Your task to perform on an android device: refresh tabs in the chrome app Image 0: 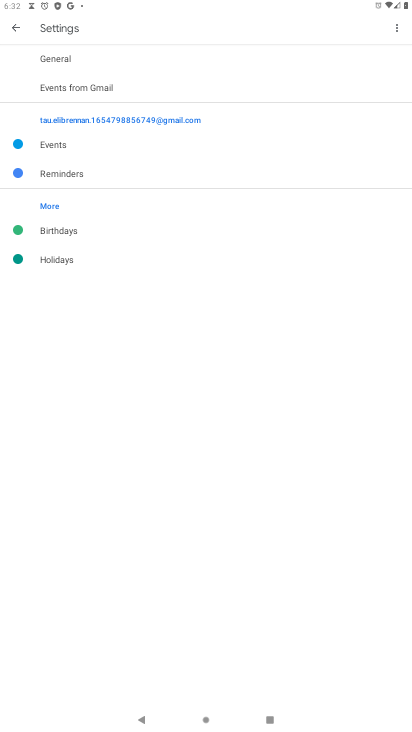
Step 0: press home button
Your task to perform on an android device: refresh tabs in the chrome app Image 1: 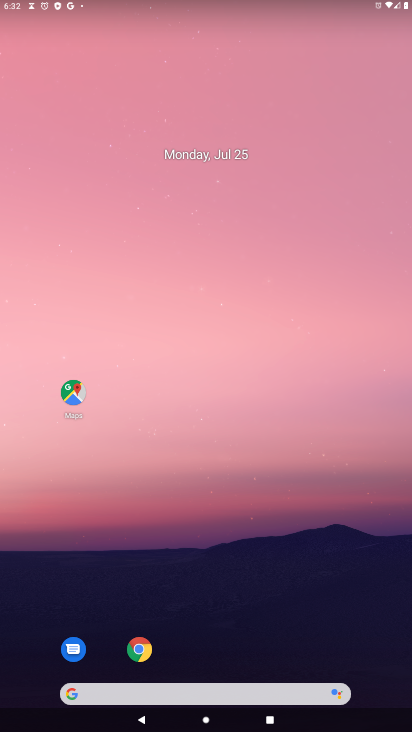
Step 1: drag from (198, 680) to (181, 0)
Your task to perform on an android device: refresh tabs in the chrome app Image 2: 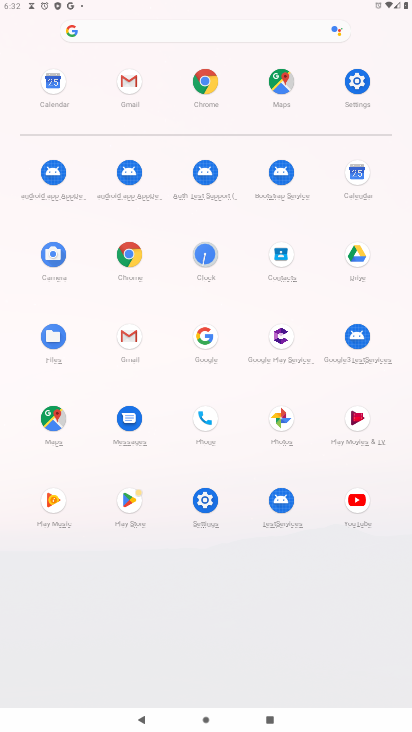
Step 2: click (129, 254)
Your task to perform on an android device: refresh tabs in the chrome app Image 3: 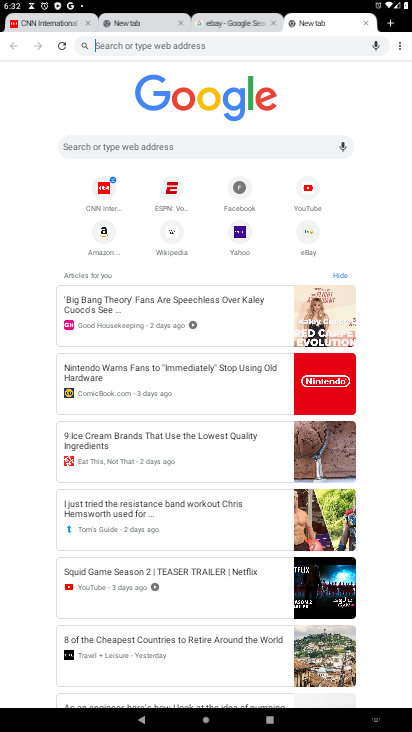
Step 3: drag from (403, 41) to (55, 42)
Your task to perform on an android device: refresh tabs in the chrome app Image 4: 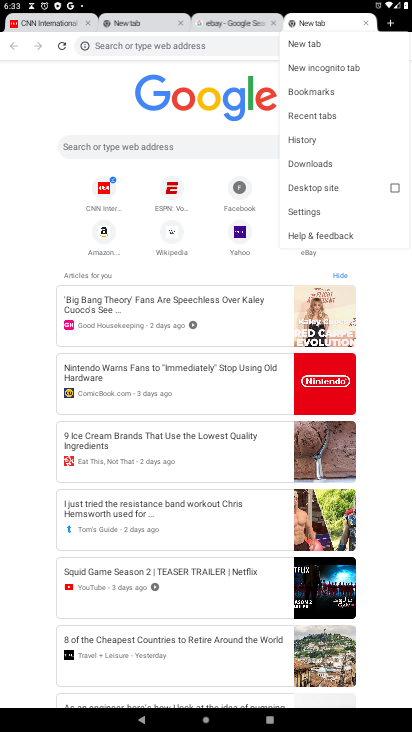
Step 4: click (55, 42)
Your task to perform on an android device: refresh tabs in the chrome app Image 5: 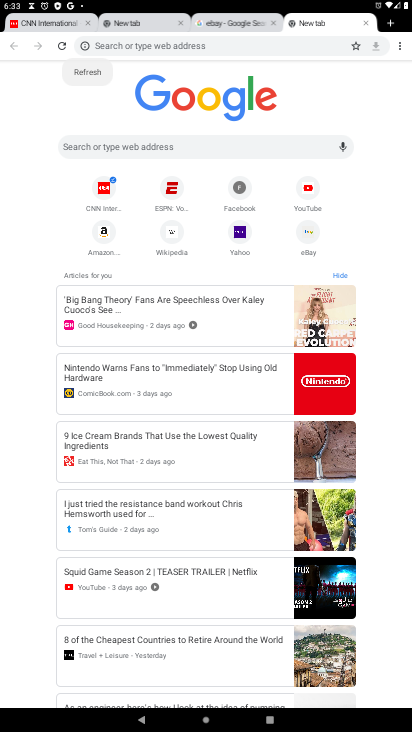
Step 5: click (60, 49)
Your task to perform on an android device: refresh tabs in the chrome app Image 6: 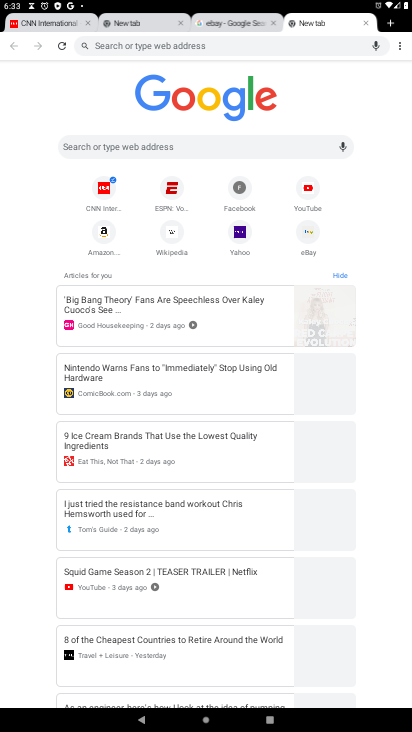
Step 6: task complete